Your task to perform on an android device: turn notification dots off Image 0: 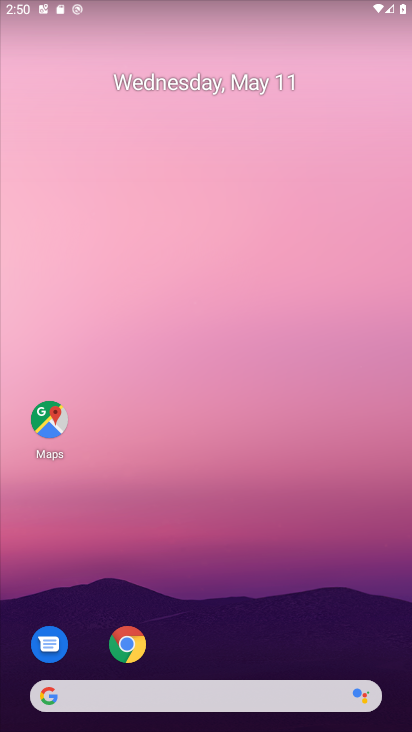
Step 0: drag from (226, 672) to (226, 159)
Your task to perform on an android device: turn notification dots off Image 1: 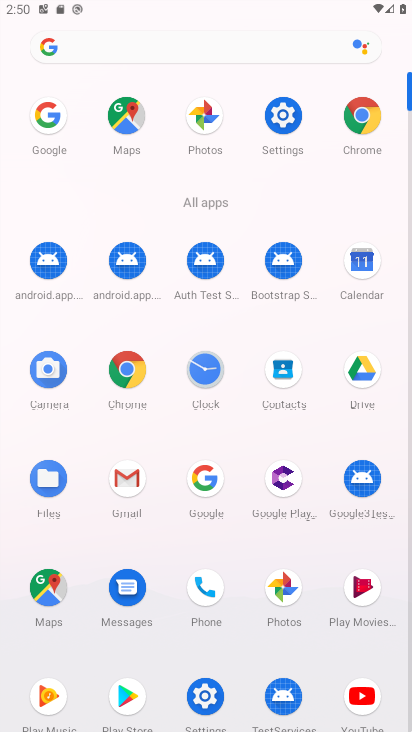
Step 1: click (276, 119)
Your task to perform on an android device: turn notification dots off Image 2: 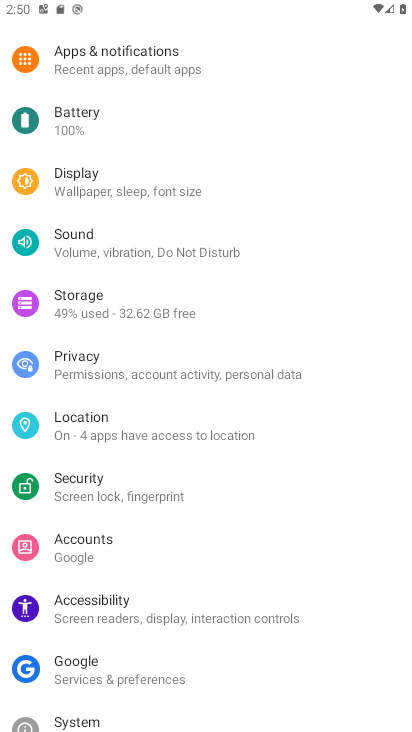
Step 2: click (131, 77)
Your task to perform on an android device: turn notification dots off Image 3: 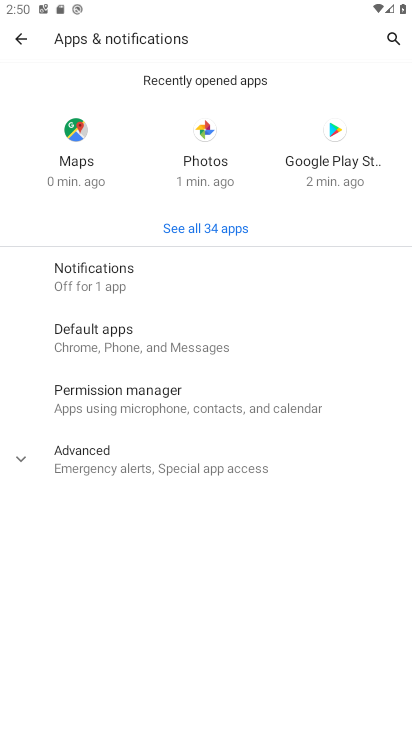
Step 3: click (110, 285)
Your task to perform on an android device: turn notification dots off Image 4: 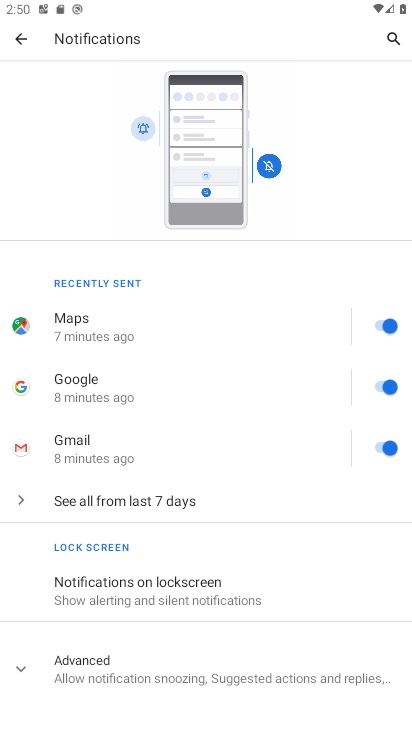
Step 4: click (192, 654)
Your task to perform on an android device: turn notification dots off Image 5: 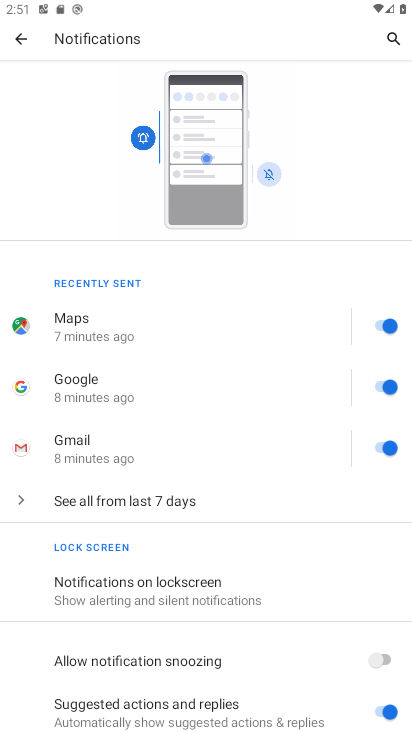
Step 5: drag from (185, 652) to (111, 179)
Your task to perform on an android device: turn notification dots off Image 6: 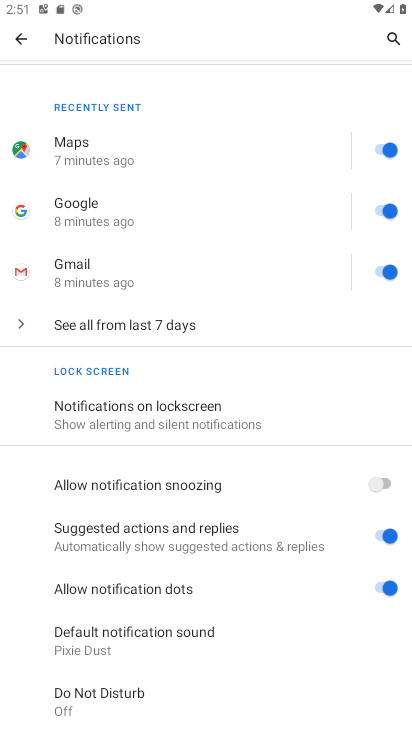
Step 6: click (377, 587)
Your task to perform on an android device: turn notification dots off Image 7: 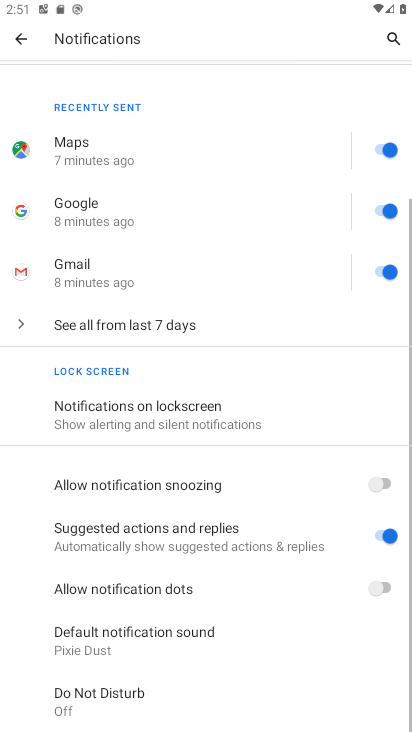
Step 7: task complete